Your task to perform on an android device: check battery use Image 0: 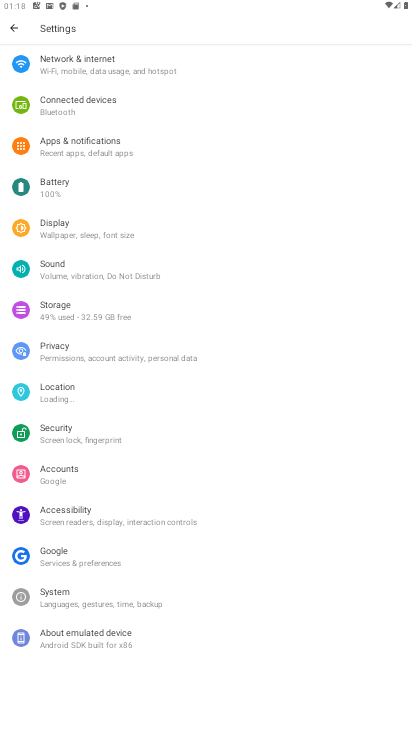
Step 0: click (219, 678)
Your task to perform on an android device: check battery use Image 1: 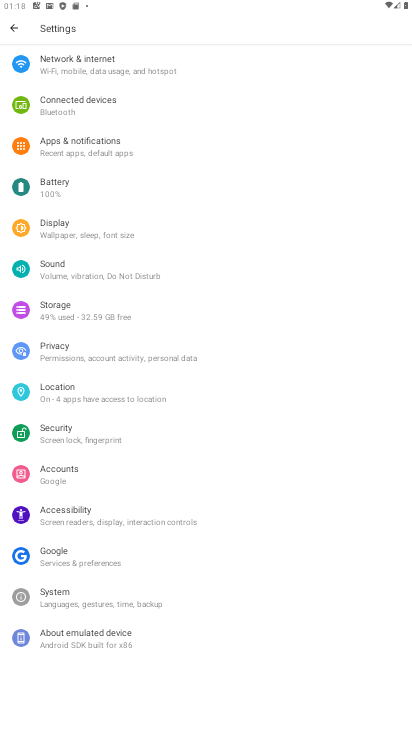
Step 1: click (60, 181)
Your task to perform on an android device: check battery use Image 2: 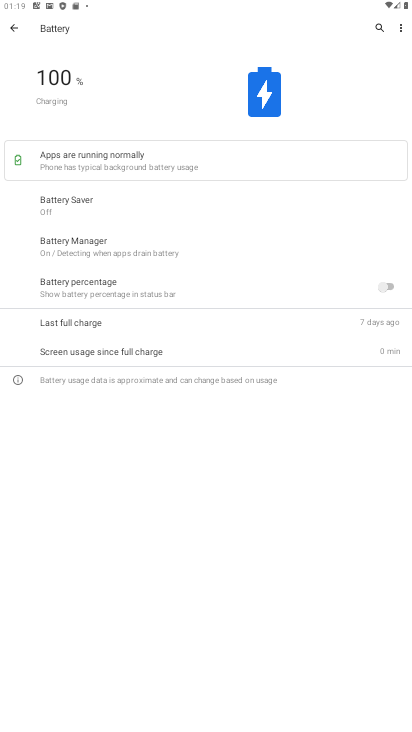
Step 2: task complete